Your task to perform on an android device: change notifications settings Image 0: 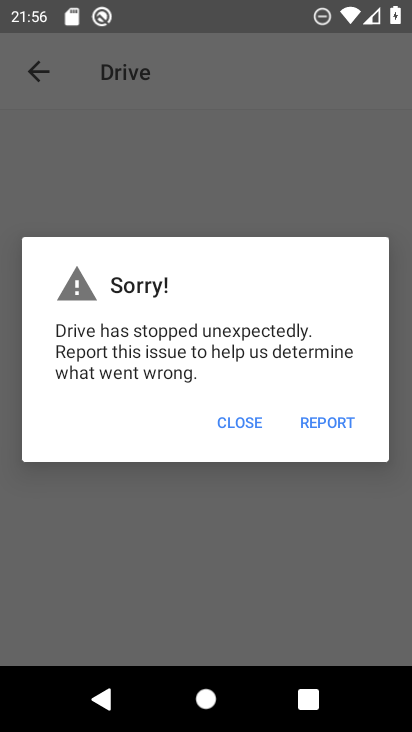
Step 0: press home button
Your task to perform on an android device: change notifications settings Image 1: 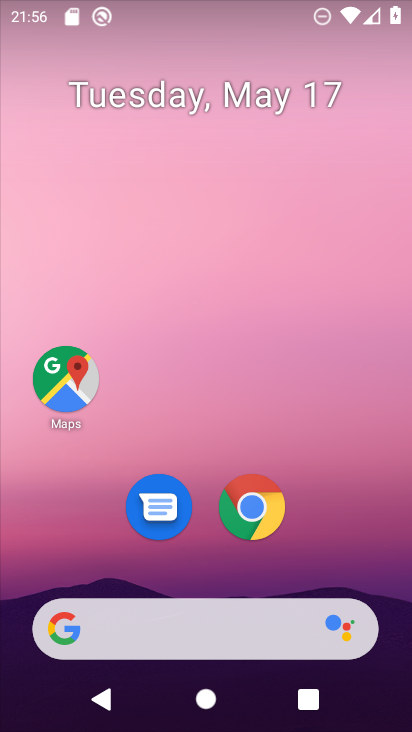
Step 1: drag from (346, 566) to (368, 10)
Your task to perform on an android device: change notifications settings Image 2: 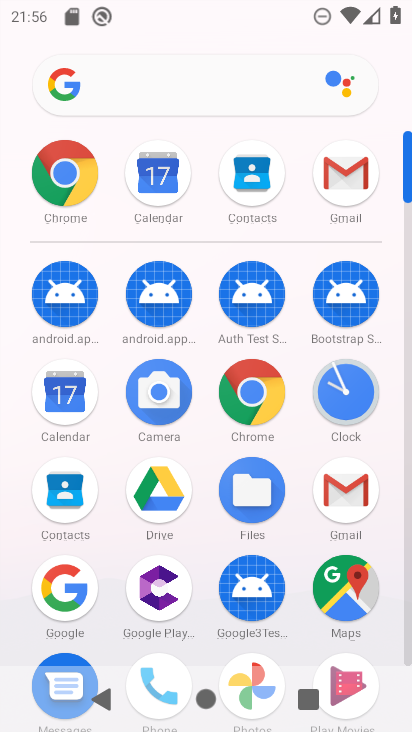
Step 2: drag from (408, 509) to (403, 455)
Your task to perform on an android device: change notifications settings Image 3: 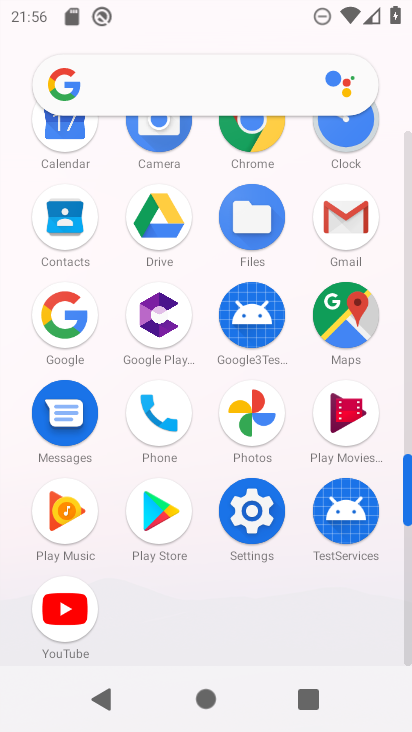
Step 3: click (270, 511)
Your task to perform on an android device: change notifications settings Image 4: 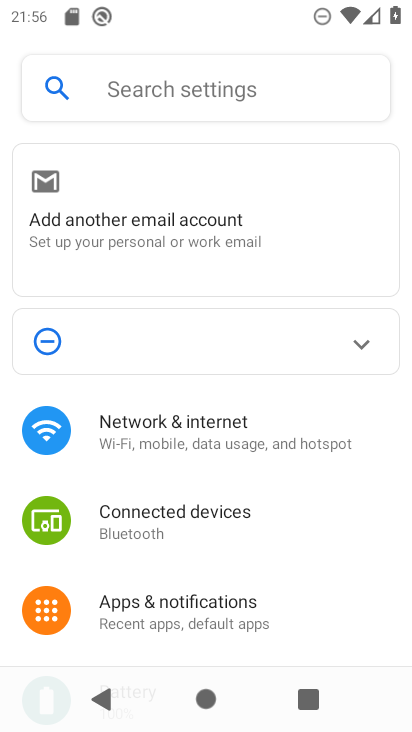
Step 4: click (186, 604)
Your task to perform on an android device: change notifications settings Image 5: 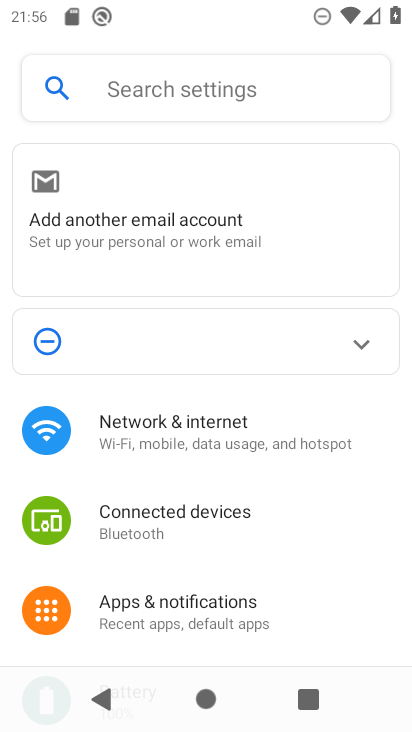
Step 5: click (168, 612)
Your task to perform on an android device: change notifications settings Image 6: 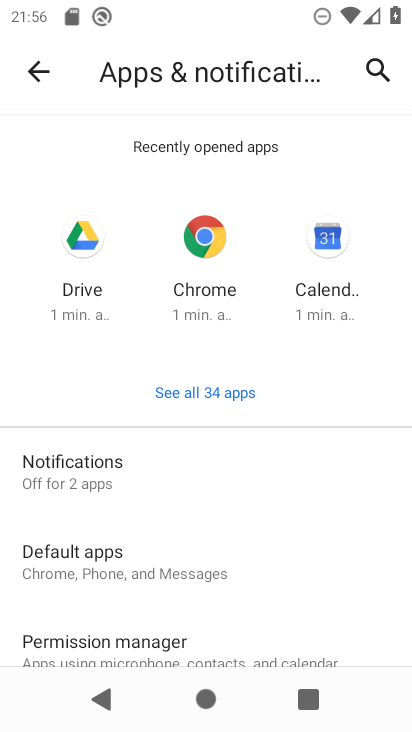
Step 6: click (87, 486)
Your task to perform on an android device: change notifications settings Image 7: 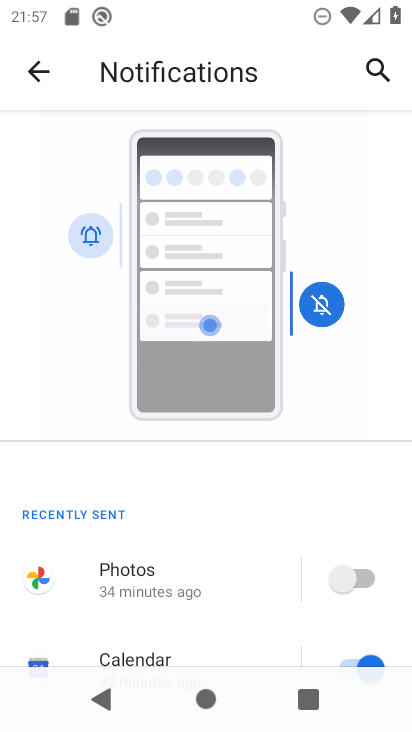
Step 7: drag from (232, 570) to (241, 96)
Your task to perform on an android device: change notifications settings Image 8: 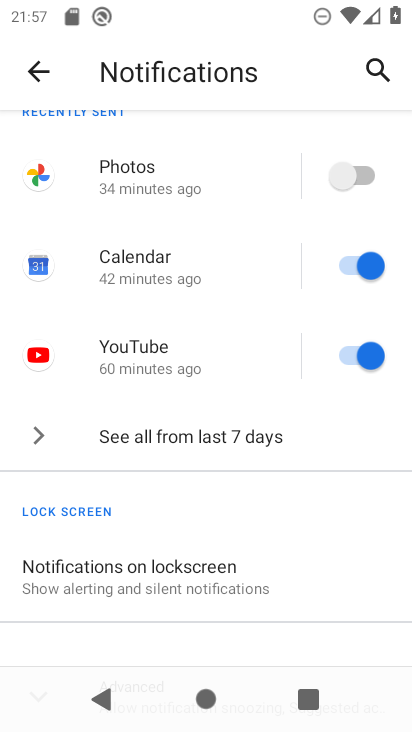
Step 8: click (132, 440)
Your task to perform on an android device: change notifications settings Image 9: 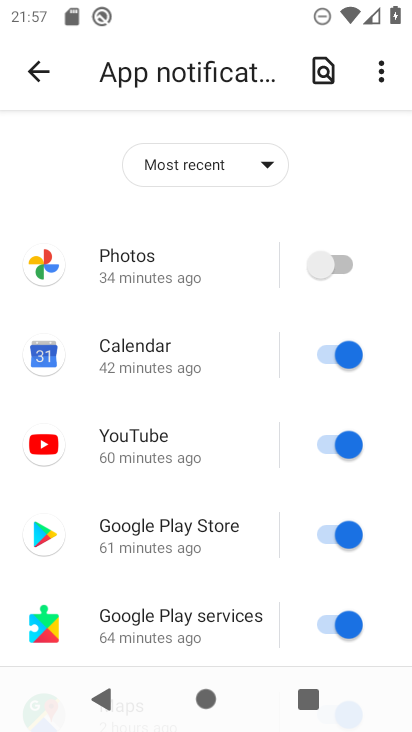
Step 9: click (262, 169)
Your task to perform on an android device: change notifications settings Image 10: 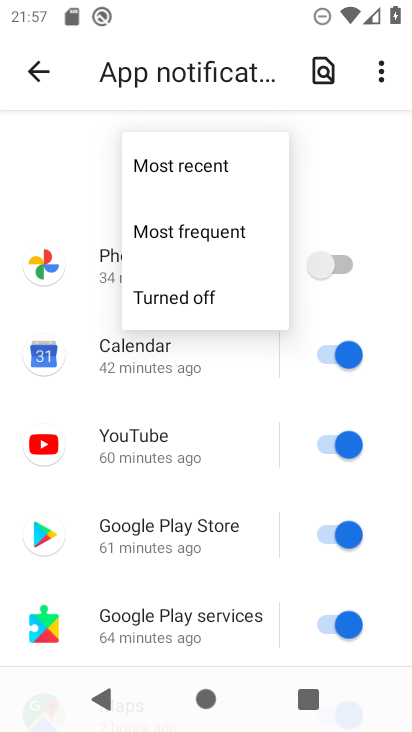
Step 10: click (156, 220)
Your task to perform on an android device: change notifications settings Image 11: 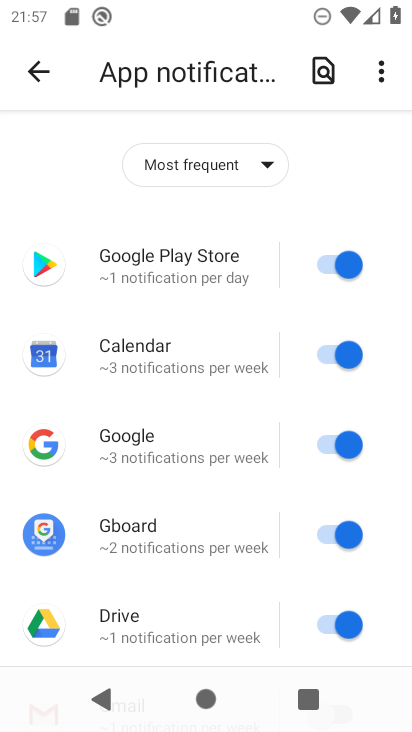
Step 11: task complete